Your task to perform on an android device: toggle wifi Image 0: 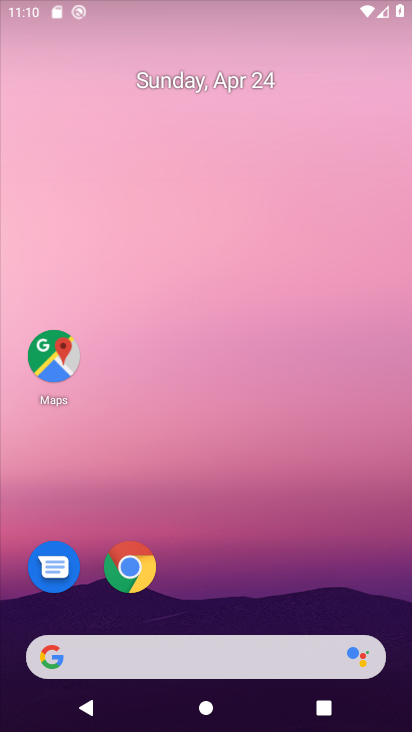
Step 0: drag from (244, 646) to (280, 207)
Your task to perform on an android device: toggle wifi Image 1: 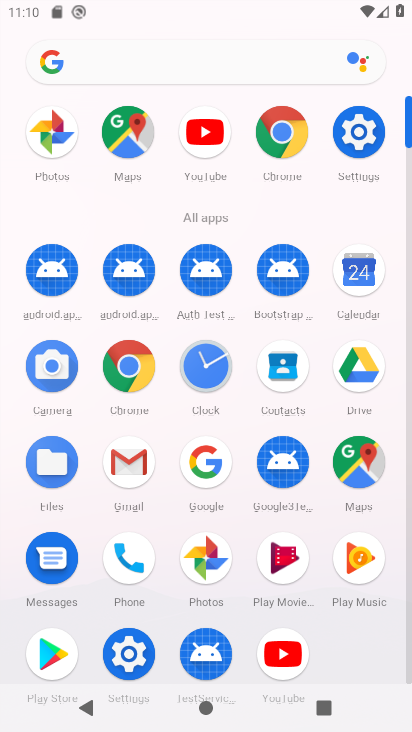
Step 1: click (364, 149)
Your task to perform on an android device: toggle wifi Image 2: 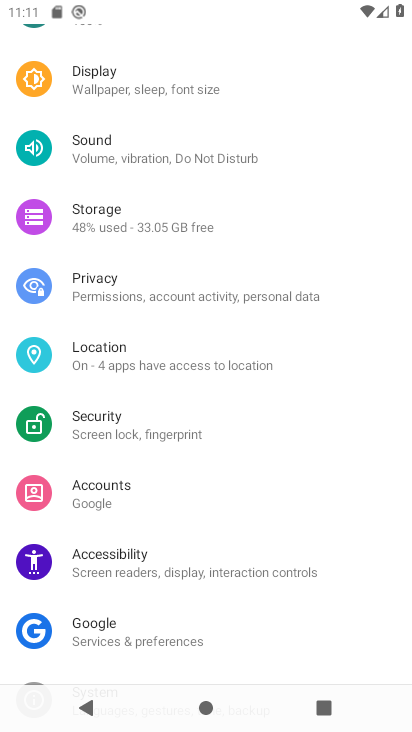
Step 2: drag from (252, 188) to (226, 384)
Your task to perform on an android device: toggle wifi Image 3: 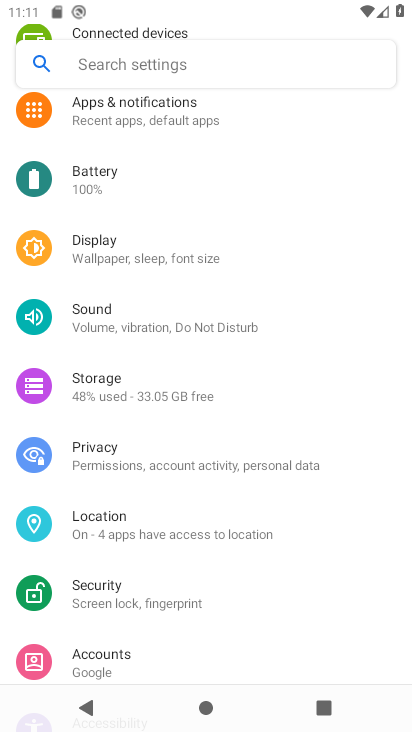
Step 3: drag from (194, 161) to (168, 379)
Your task to perform on an android device: toggle wifi Image 4: 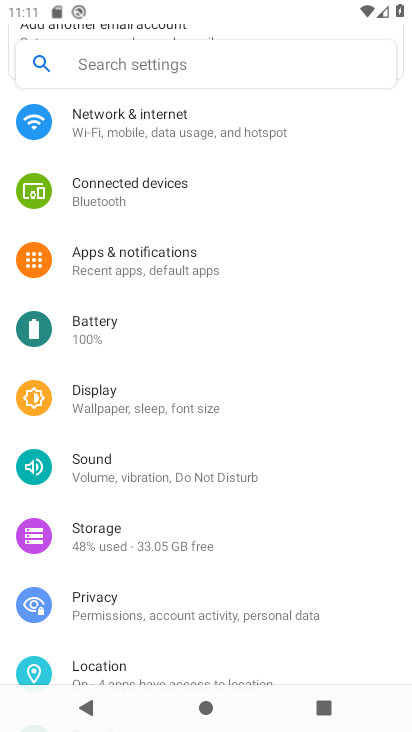
Step 4: drag from (225, 201) to (216, 256)
Your task to perform on an android device: toggle wifi Image 5: 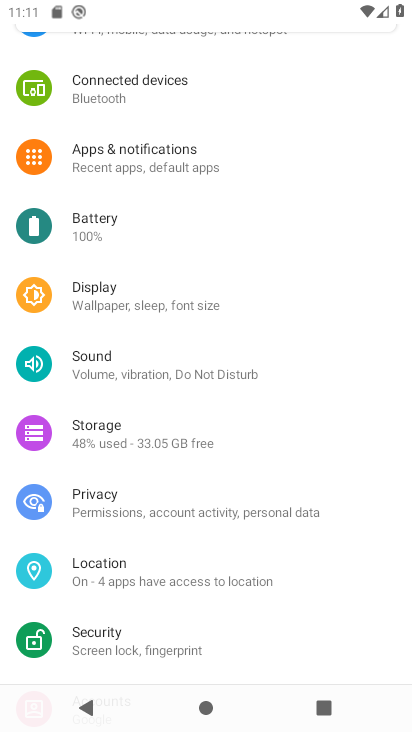
Step 5: drag from (241, 132) to (198, 496)
Your task to perform on an android device: toggle wifi Image 6: 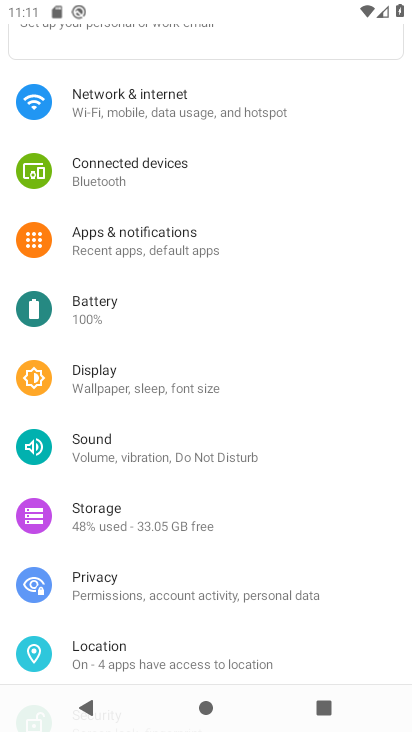
Step 6: click (230, 121)
Your task to perform on an android device: toggle wifi Image 7: 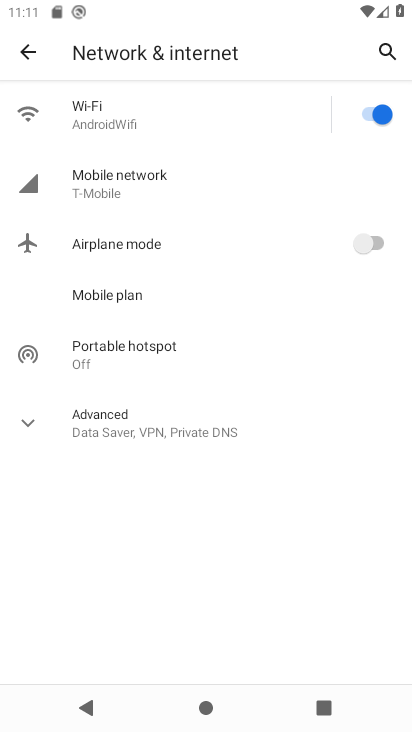
Step 7: click (372, 109)
Your task to perform on an android device: toggle wifi Image 8: 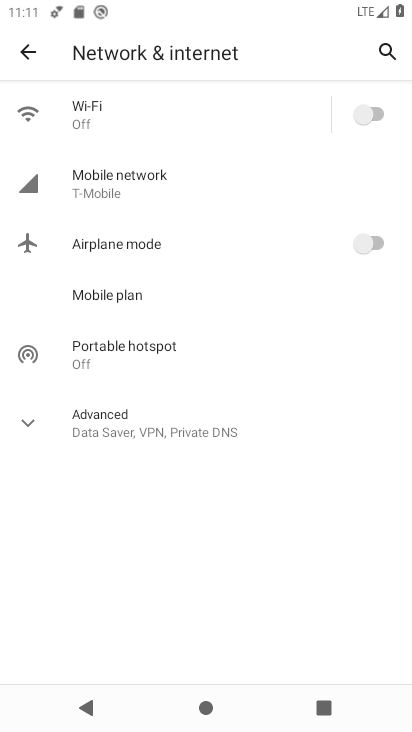
Step 8: task complete